Your task to perform on an android device: see creations saved in the google photos Image 0: 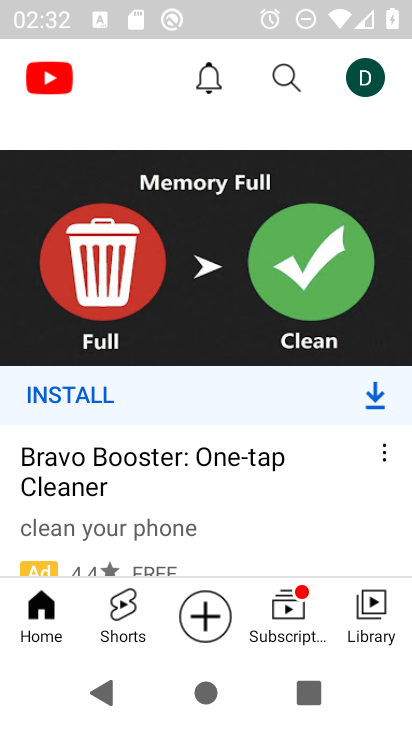
Step 0: press home button
Your task to perform on an android device: see creations saved in the google photos Image 1: 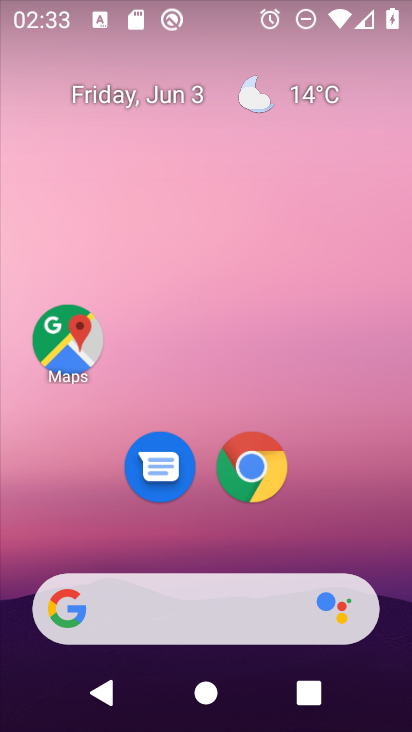
Step 1: drag from (370, 550) to (336, 110)
Your task to perform on an android device: see creations saved in the google photos Image 2: 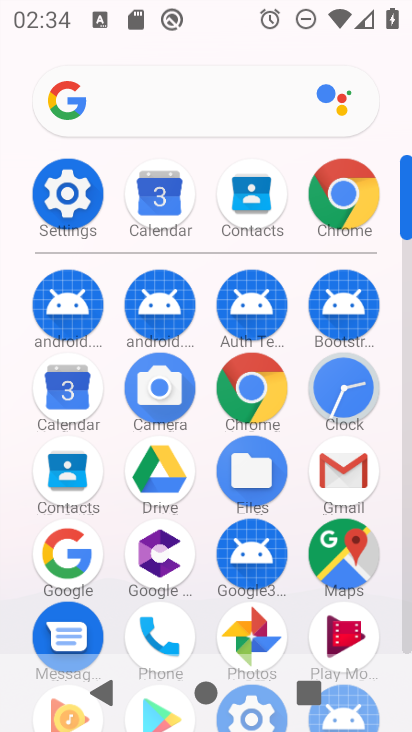
Step 2: click (406, 637)
Your task to perform on an android device: see creations saved in the google photos Image 3: 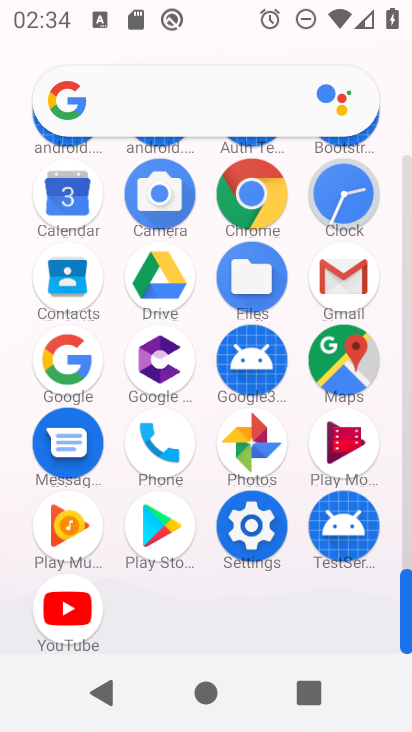
Step 3: click (251, 439)
Your task to perform on an android device: see creations saved in the google photos Image 4: 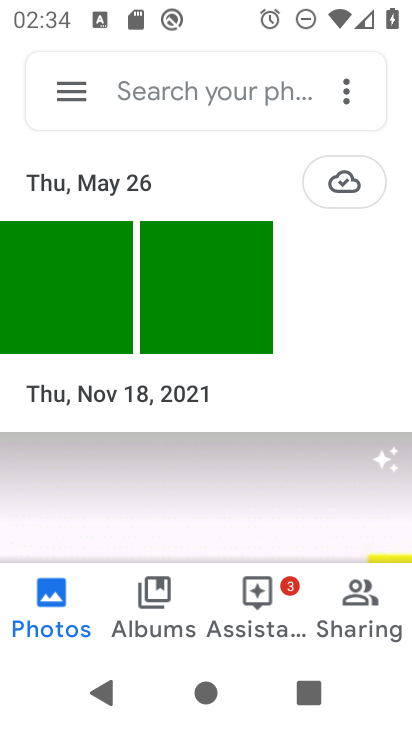
Step 4: task complete